Your task to perform on an android device: Open eBay Image 0: 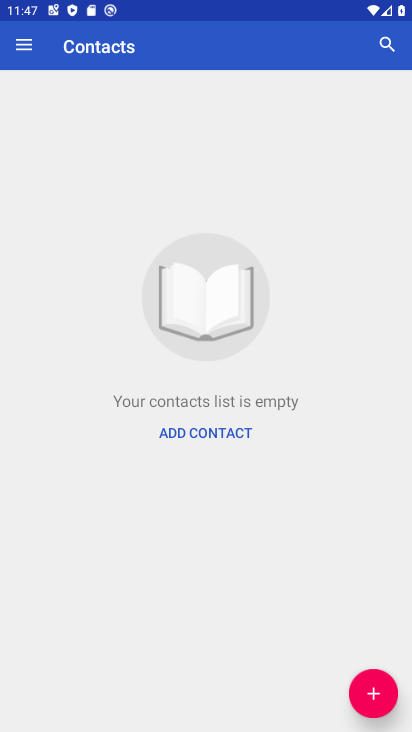
Step 0: press home button
Your task to perform on an android device: Open eBay Image 1: 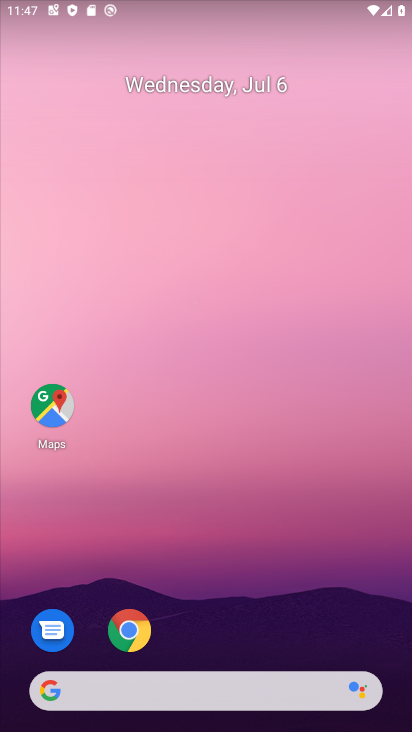
Step 1: drag from (213, 614) to (224, 274)
Your task to perform on an android device: Open eBay Image 2: 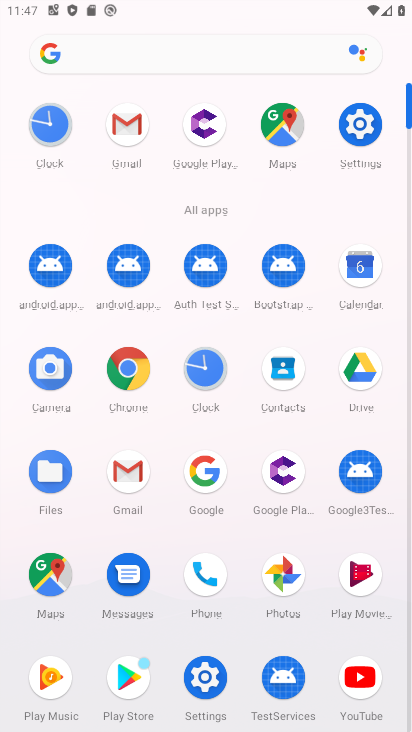
Step 2: click (129, 360)
Your task to perform on an android device: Open eBay Image 3: 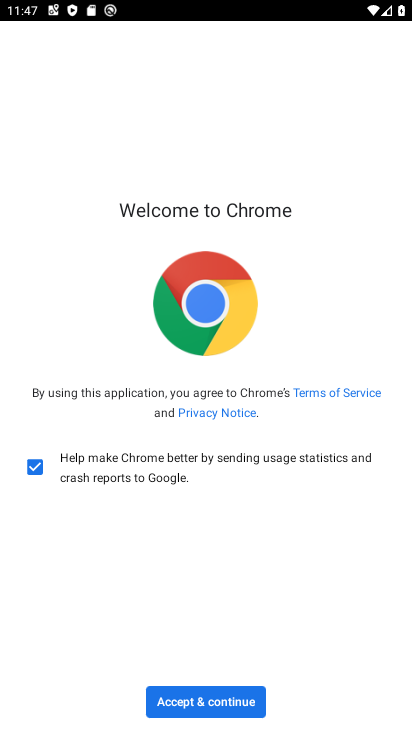
Step 3: click (219, 697)
Your task to perform on an android device: Open eBay Image 4: 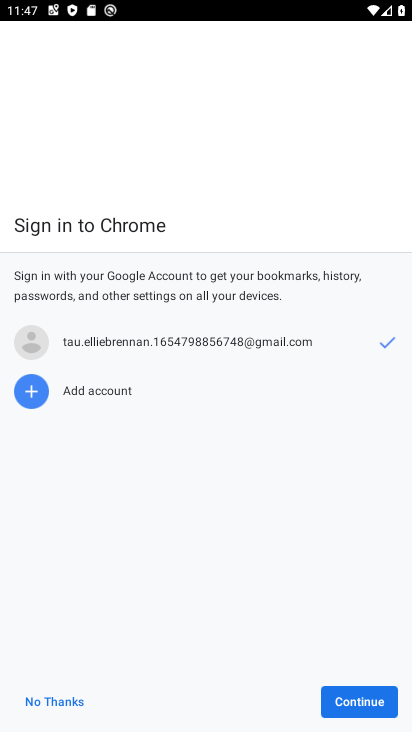
Step 4: click (356, 696)
Your task to perform on an android device: Open eBay Image 5: 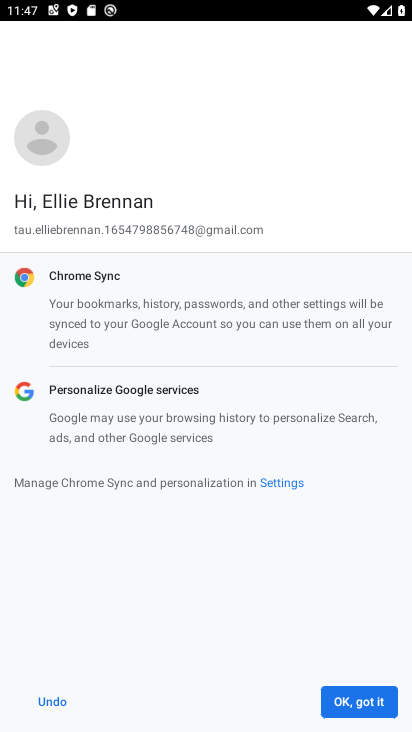
Step 5: click (355, 696)
Your task to perform on an android device: Open eBay Image 6: 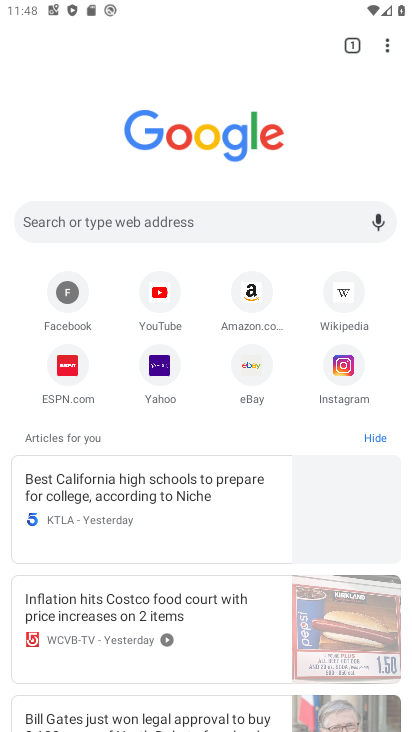
Step 6: click (213, 230)
Your task to perform on an android device: Open eBay Image 7: 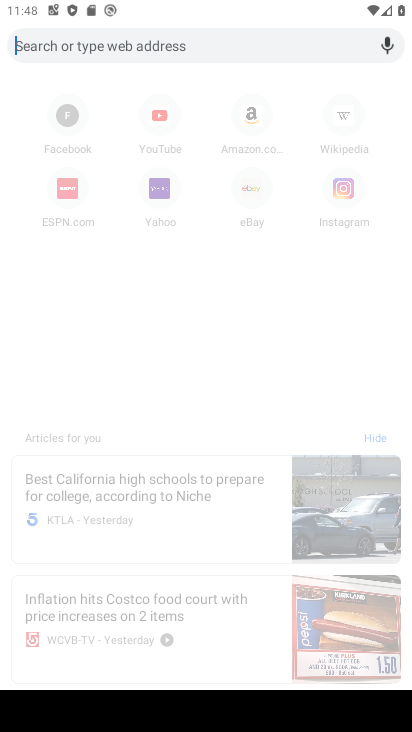
Step 7: type "eBay"
Your task to perform on an android device: Open eBay Image 8: 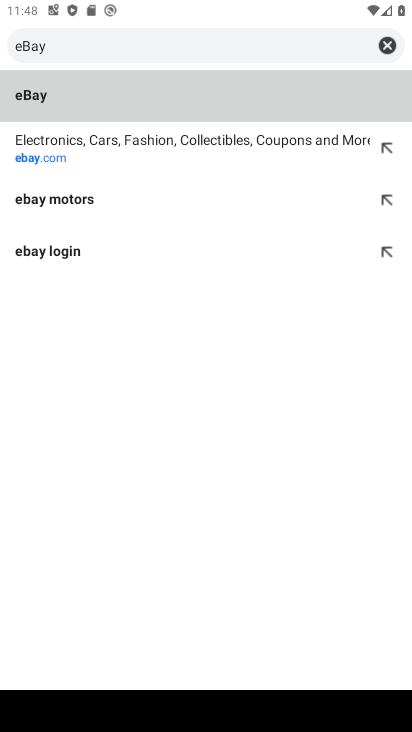
Step 8: click (62, 97)
Your task to perform on an android device: Open eBay Image 9: 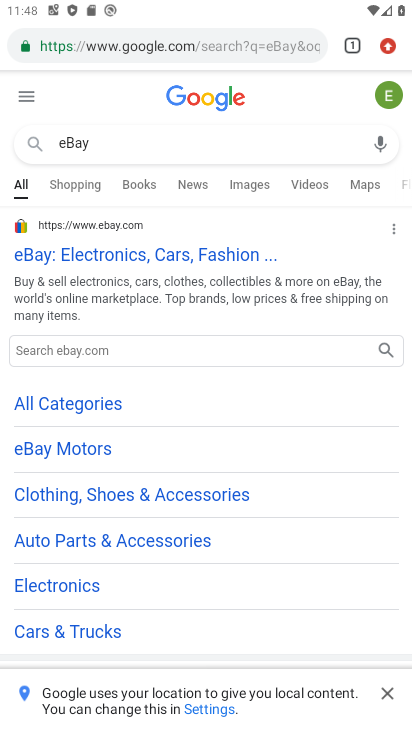
Step 9: task complete